Your task to perform on an android device: turn on the 12-hour format for clock Image 0: 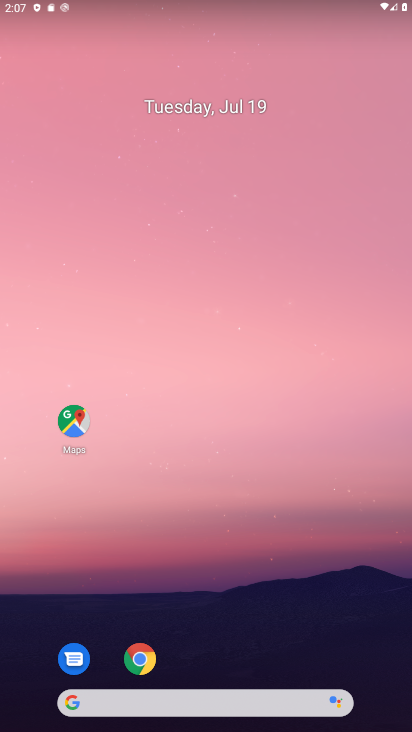
Step 0: drag from (369, 610) to (154, 144)
Your task to perform on an android device: turn on the 12-hour format for clock Image 1: 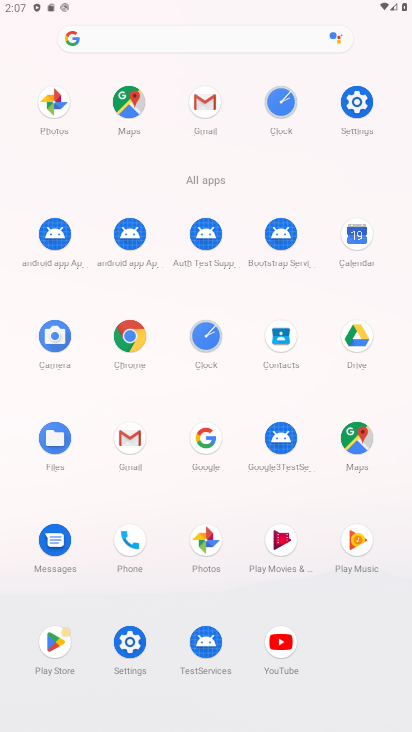
Step 1: click (284, 110)
Your task to perform on an android device: turn on the 12-hour format for clock Image 2: 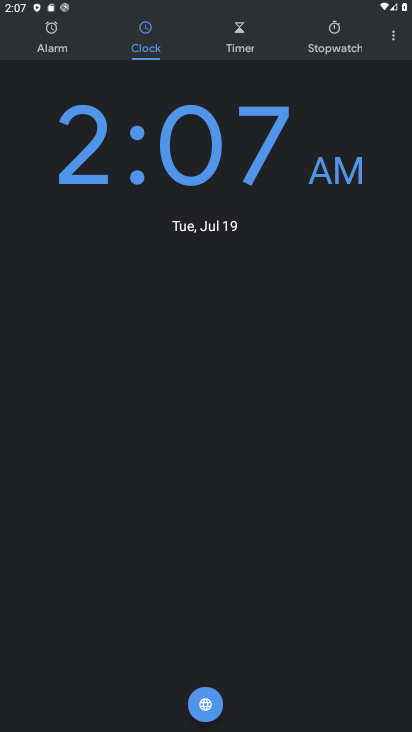
Step 2: click (400, 43)
Your task to perform on an android device: turn on the 12-hour format for clock Image 3: 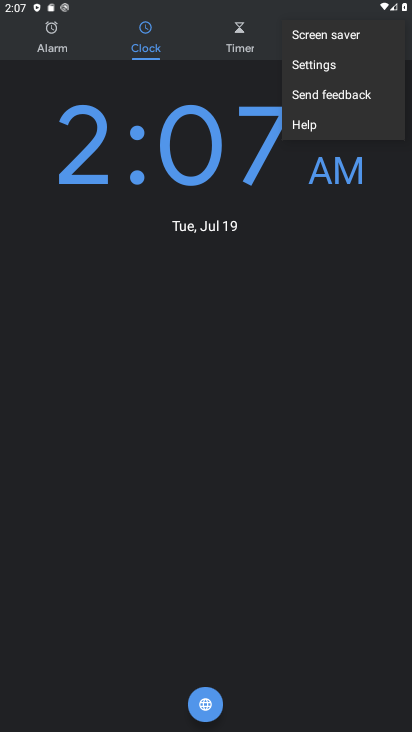
Step 3: click (324, 62)
Your task to perform on an android device: turn on the 12-hour format for clock Image 4: 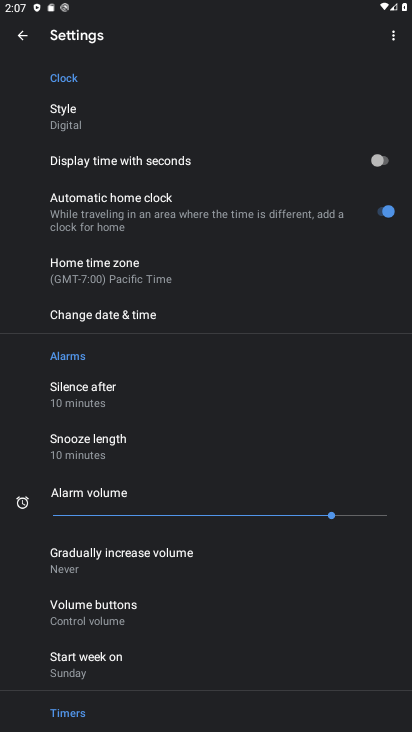
Step 4: click (112, 324)
Your task to perform on an android device: turn on the 12-hour format for clock Image 5: 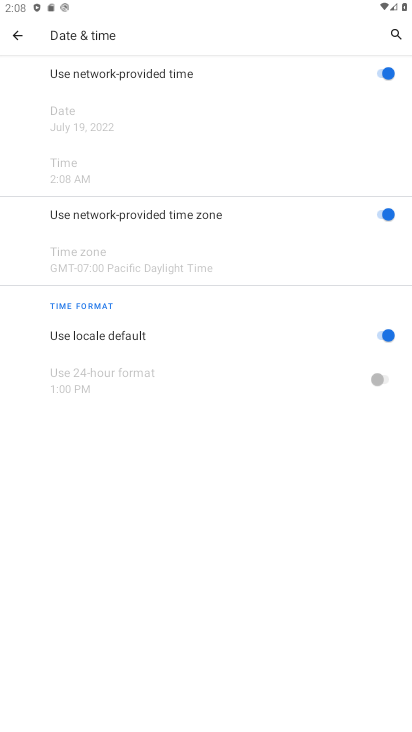
Step 5: click (383, 344)
Your task to perform on an android device: turn on the 12-hour format for clock Image 6: 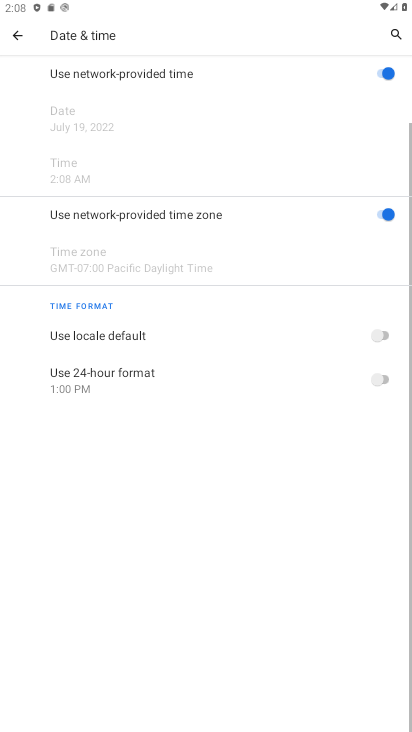
Step 6: click (380, 364)
Your task to perform on an android device: turn on the 12-hour format for clock Image 7: 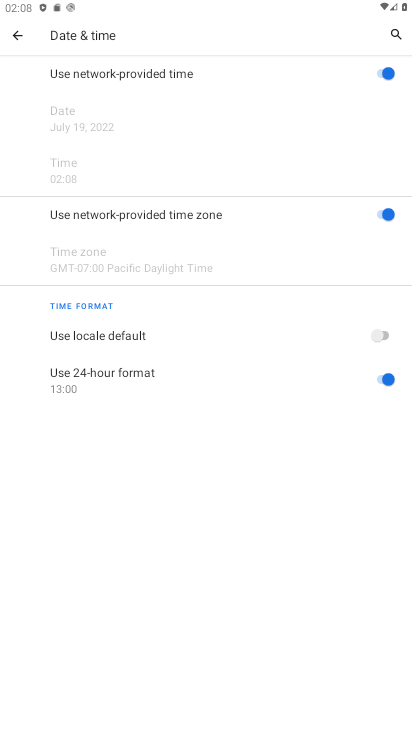
Step 7: click (388, 343)
Your task to perform on an android device: turn on the 12-hour format for clock Image 8: 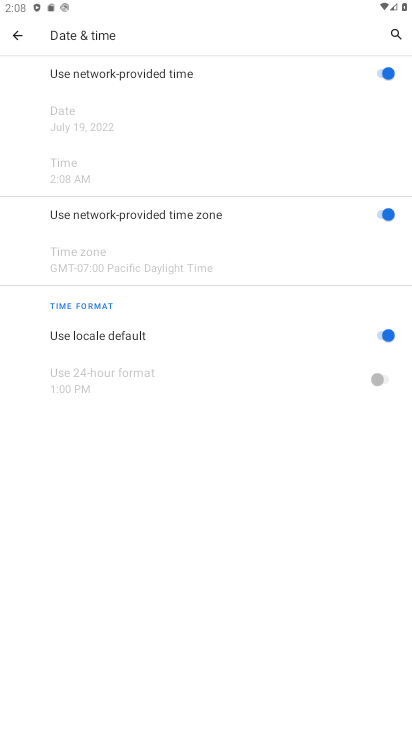
Step 8: task complete